Your task to perform on an android device: Go to sound settings Image 0: 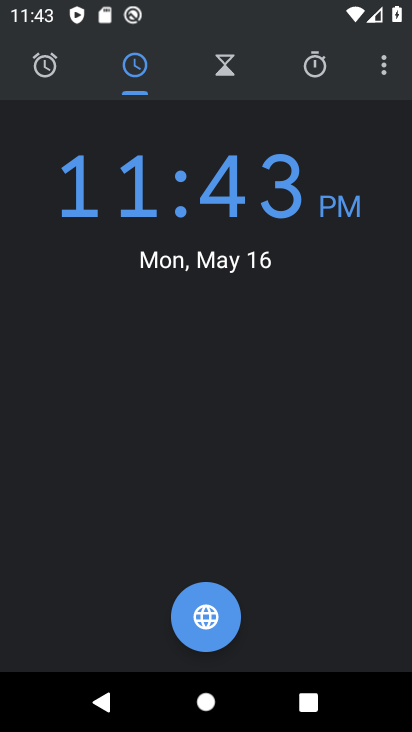
Step 0: press home button
Your task to perform on an android device: Go to sound settings Image 1: 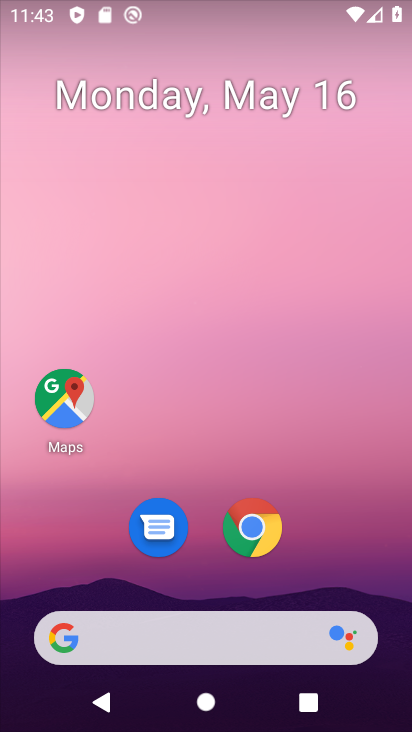
Step 1: drag from (131, 619) to (282, 135)
Your task to perform on an android device: Go to sound settings Image 2: 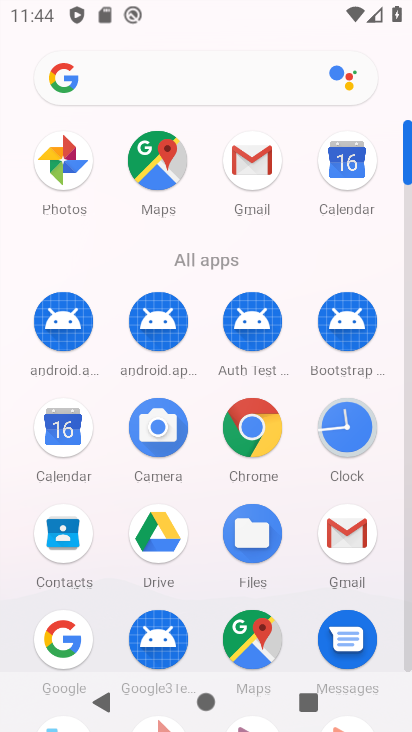
Step 2: drag from (219, 542) to (307, 162)
Your task to perform on an android device: Go to sound settings Image 3: 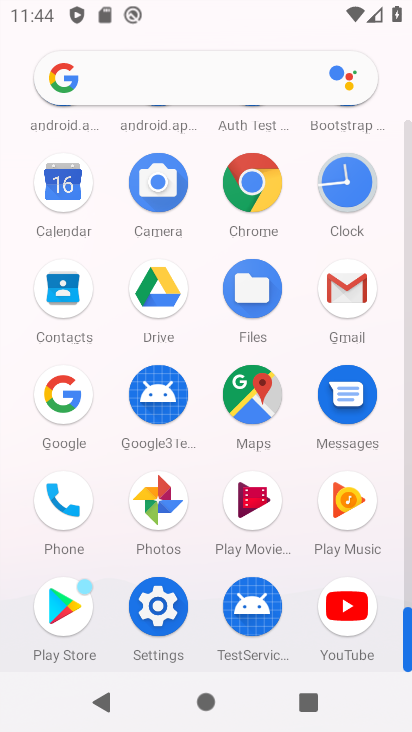
Step 3: click (158, 596)
Your task to perform on an android device: Go to sound settings Image 4: 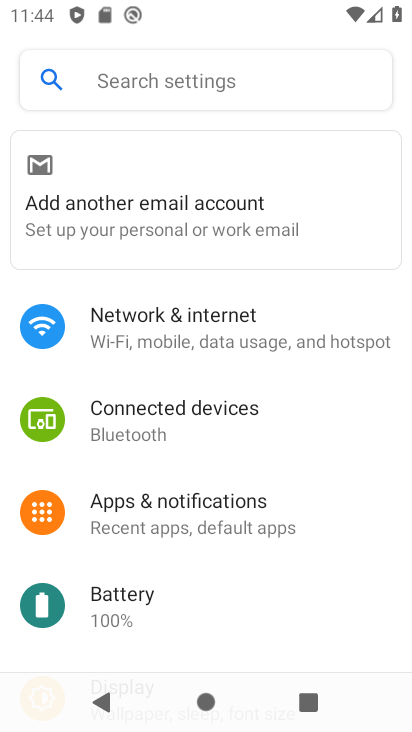
Step 4: drag from (207, 595) to (315, 278)
Your task to perform on an android device: Go to sound settings Image 5: 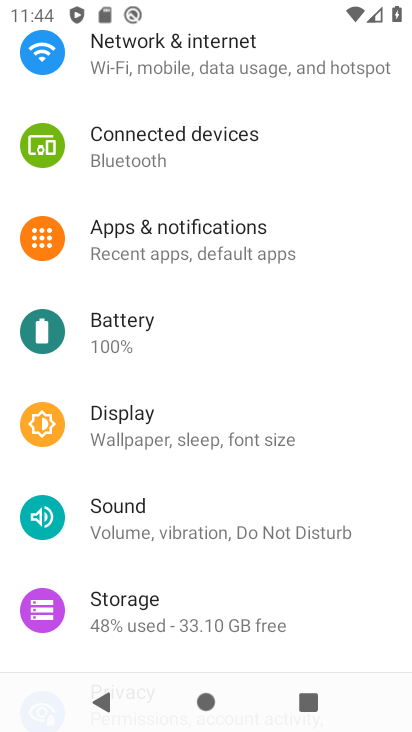
Step 5: click (149, 519)
Your task to perform on an android device: Go to sound settings Image 6: 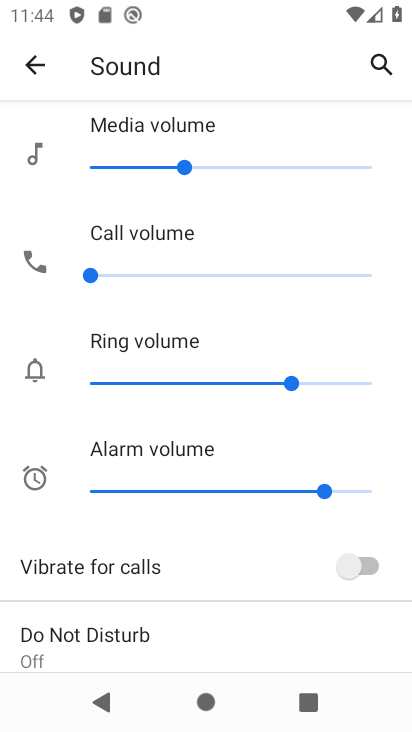
Step 6: task complete